Your task to perform on an android device: Open settings Image 0: 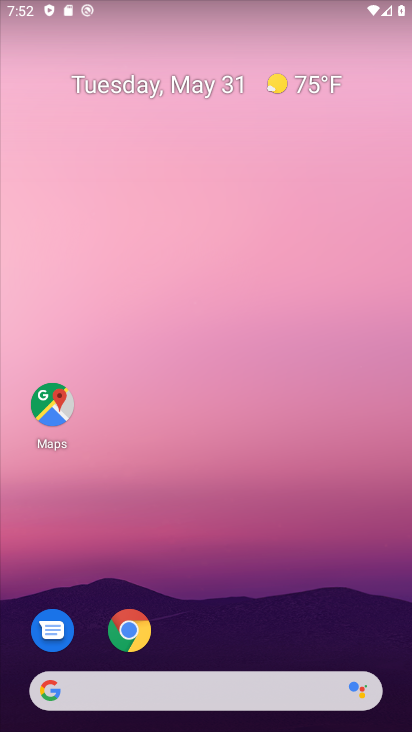
Step 0: drag from (247, 595) to (354, 224)
Your task to perform on an android device: Open settings Image 1: 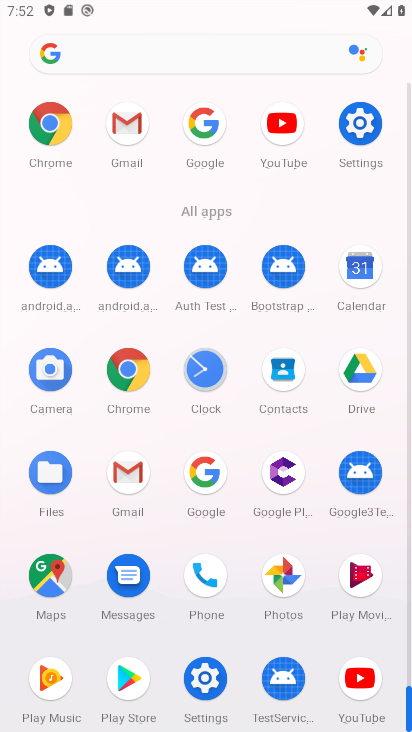
Step 1: click (362, 142)
Your task to perform on an android device: Open settings Image 2: 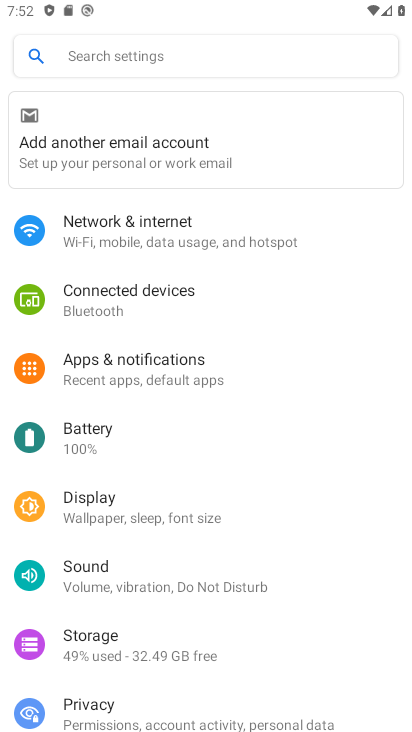
Step 2: task complete